Your task to perform on an android device: turn on priority inbox in the gmail app Image 0: 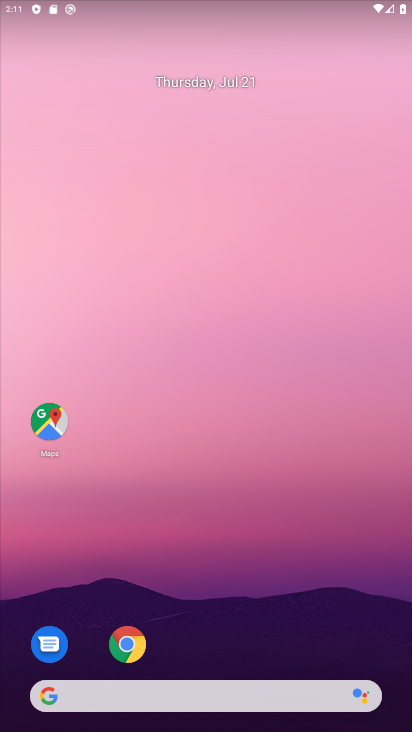
Step 0: drag from (283, 634) to (214, 93)
Your task to perform on an android device: turn on priority inbox in the gmail app Image 1: 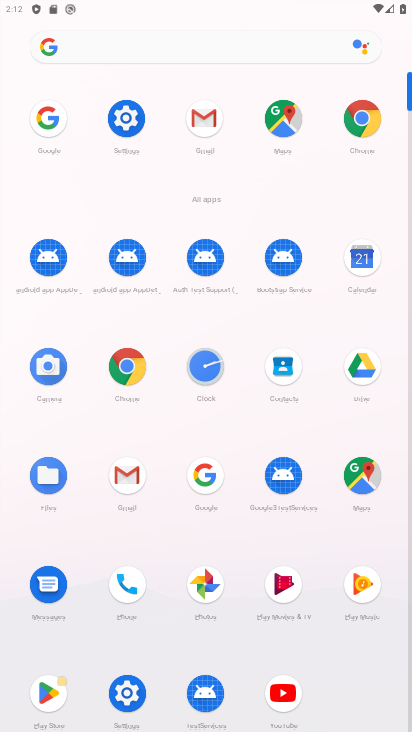
Step 1: click (185, 117)
Your task to perform on an android device: turn on priority inbox in the gmail app Image 2: 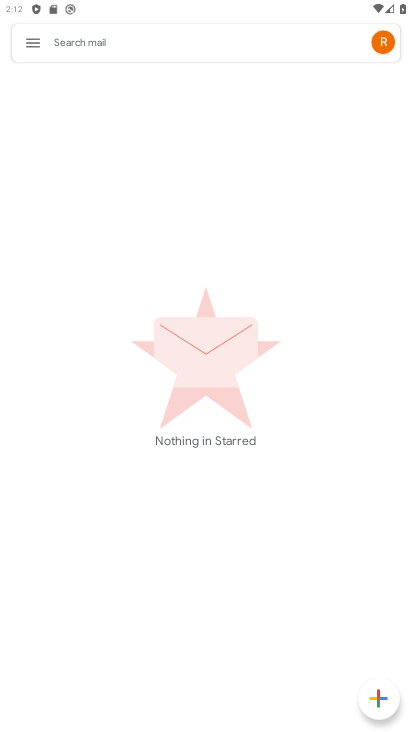
Step 2: click (35, 41)
Your task to perform on an android device: turn on priority inbox in the gmail app Image 3: 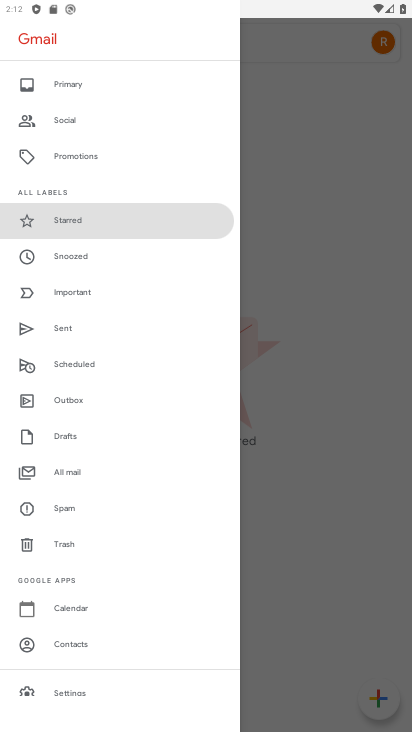
Step 3: click (83, 689)
Your task to perform on an android device: turn on priority inbox in the gmail app Image 4: 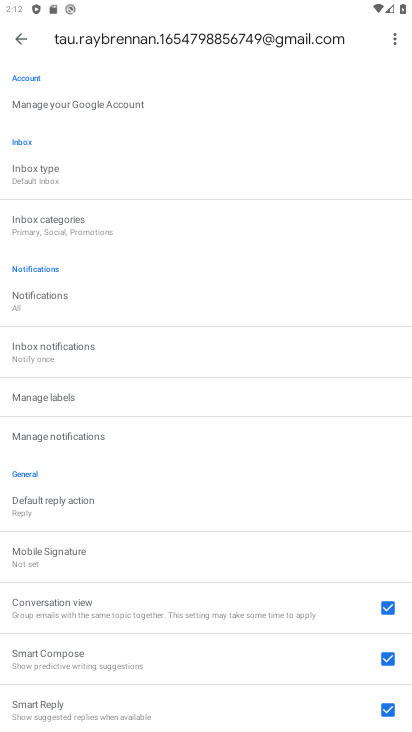
Step 4: click (174, 182)
Your task to perform on an android device: turn on priority inbox in the gmail app Image 5: 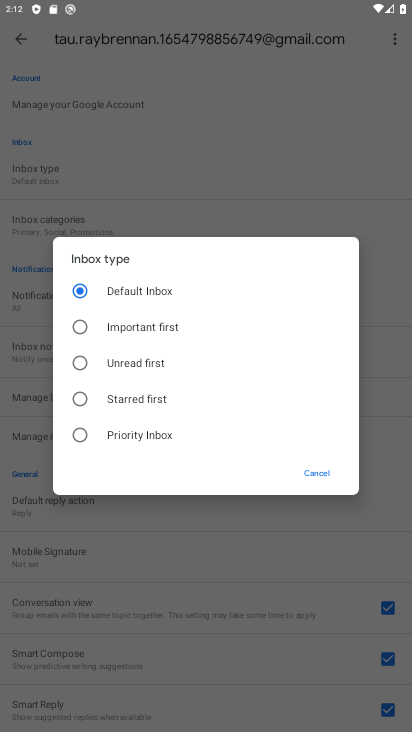
Step 5: click (172, 441)
Your task to perform on an android device: turn on priority inbox in the gmail app Image 6: 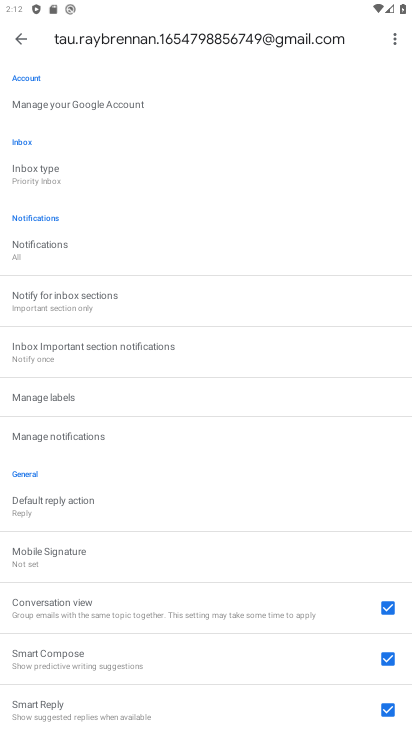
Step 6: task complete